Your task to perform on an android device: Search for Italian restaurants on Maps Image 0: 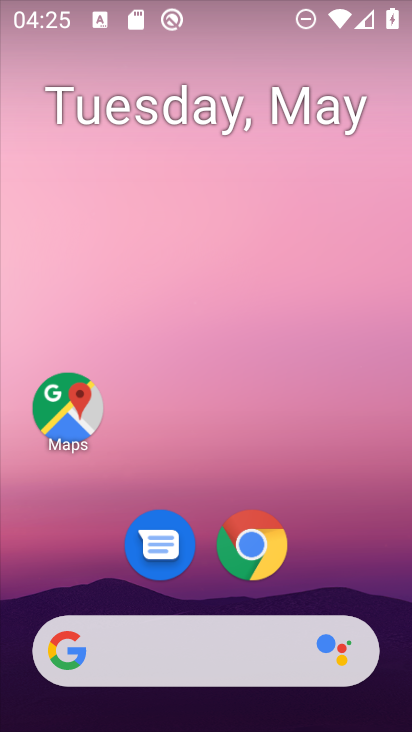
Step 0: click (71, 410)
Your task to perform on an android device: Search for Italian restaurants on Maps Image 1: 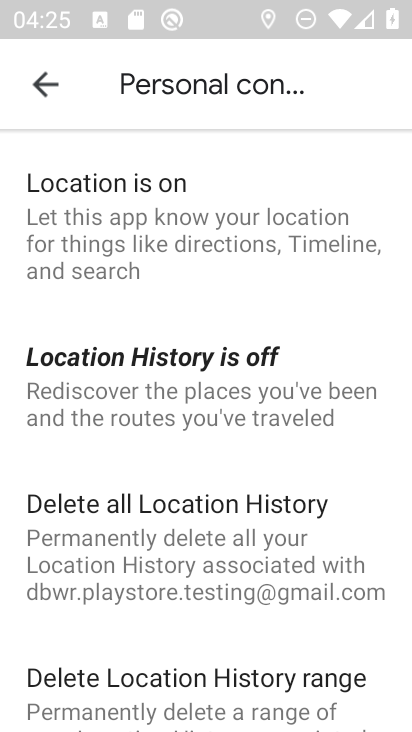
Step 1: press back button
Your task to perform on an android device: Search for Italian restaurants on Maps Image 2: 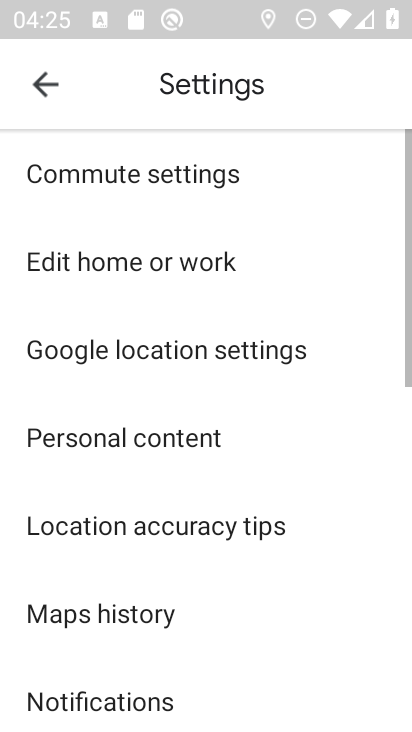
Step 2: press back button
Your task to perform on an android device: Search for Italian restaurants on Maps Image 3: 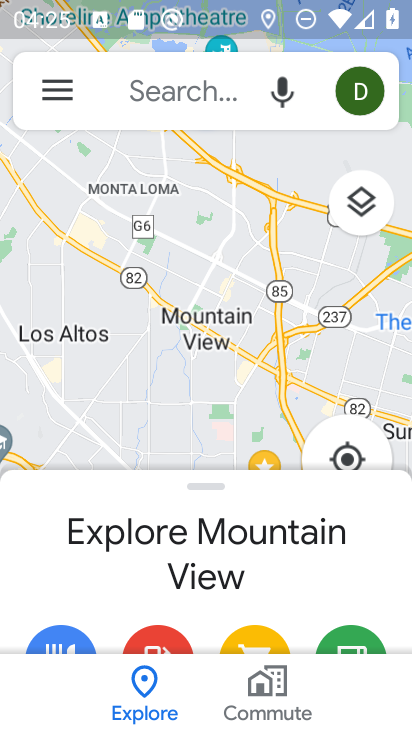
Step 3: click (156, 80)
Your task to perform on an android device: Search for Italian restaurants on Maps Image 4: 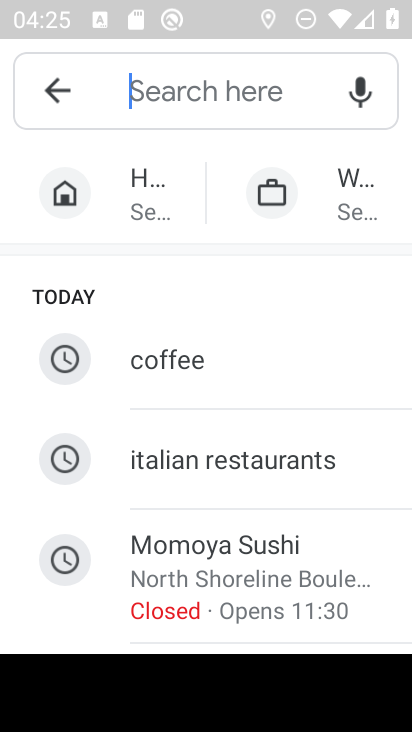
Step 4: type "italian restaurants"
Your task to perform on an android device: Search for Italian restaurants on Maps Image 5: 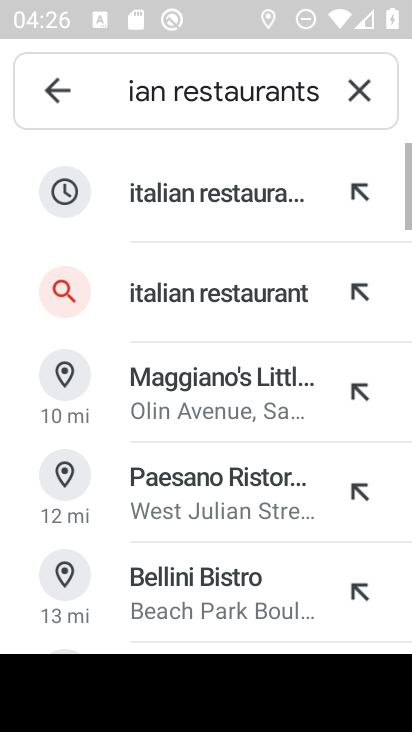
Step 5: click (230, 180)
Your task to perform on an android device: Search for Italian restaurants on Maps Image 6: 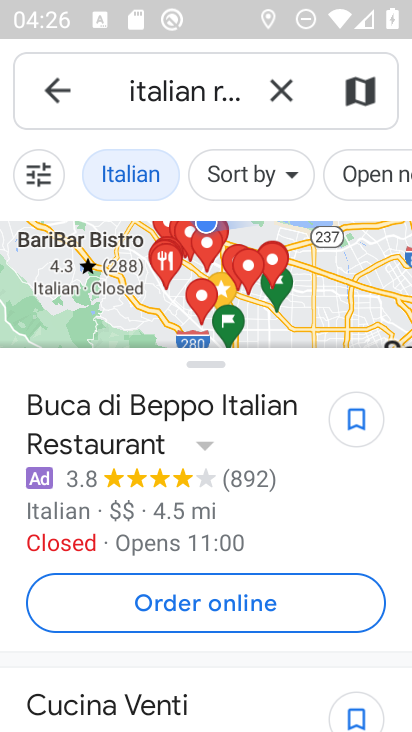
Step 6: task complete